Your task to perform on an android device: Open the Play Movies app and select the watchlist tab. Image 0: 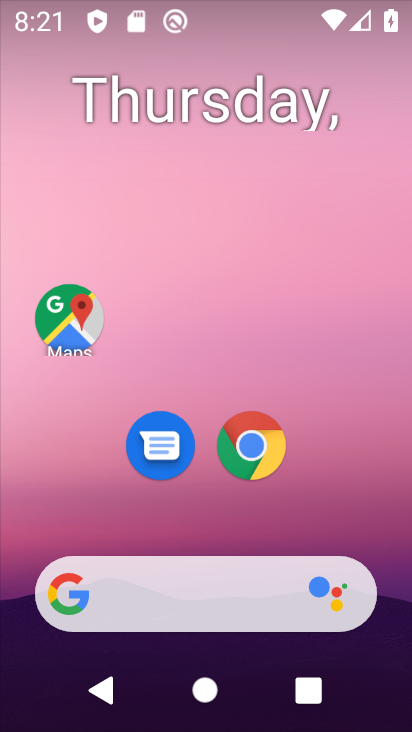
Step 0: drag from (130, 489) to (216, 130)
Your task to perform on an android device: Open the Play Movies app and select the watchlist tab. Image 1: 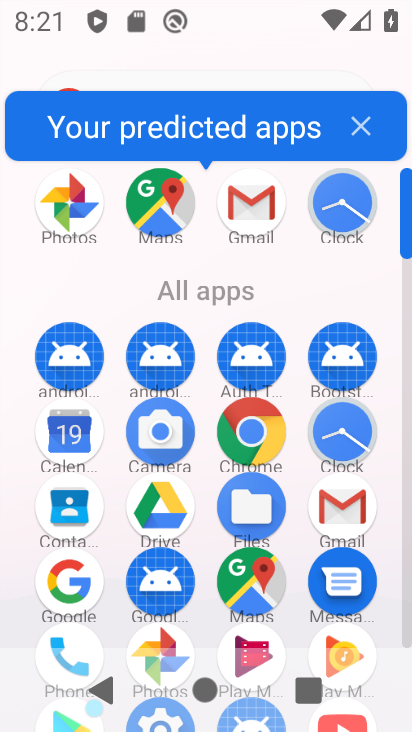
Step 1: drag from (203, 479) to (256, 130)
Your task to perform on an android device: Open the Play Movies app and select the watchlist tab. Image 2: 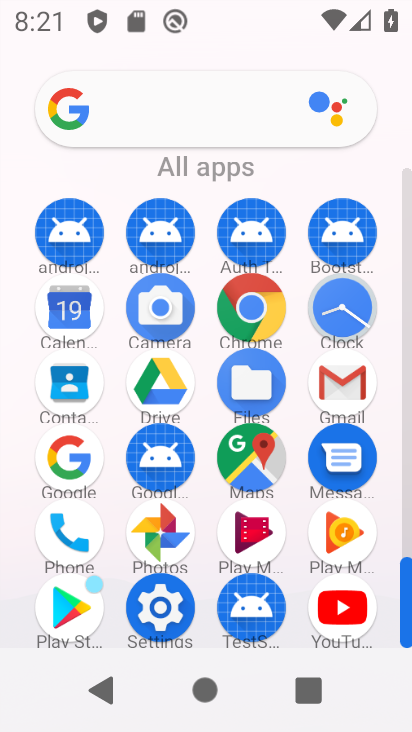
Step 2: click (253, 534)
Your task to perform on an android device: Open the Play Movies app and select the watchlist tab. Image 3: 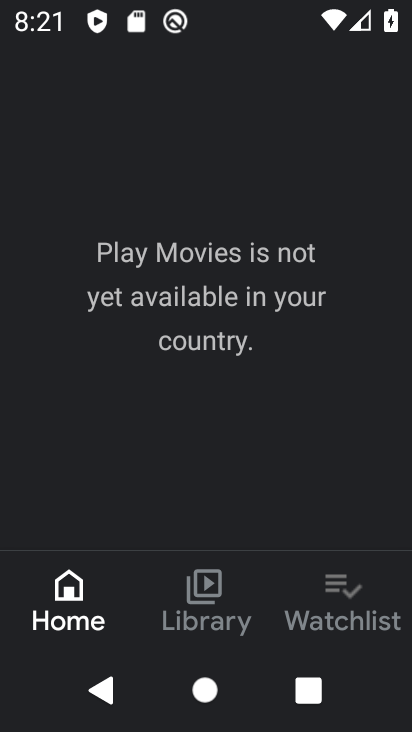
Step 3: click (351, 589)
Your task to perform on an android device: Open the Play Movies app and select the watchlist tab. Image 4: 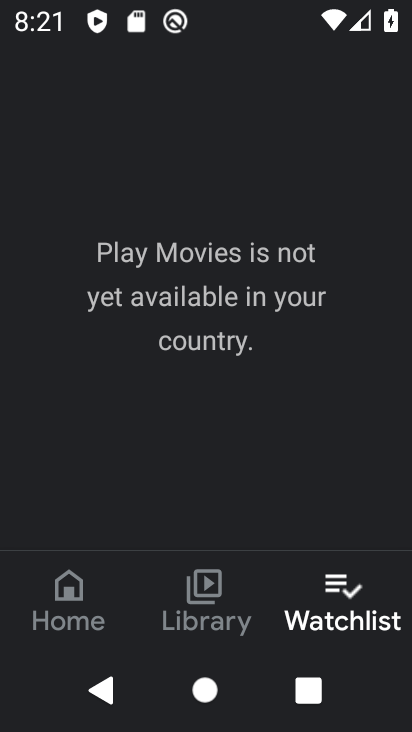
Step 4: task complete